Your task to perform on an android device: Check the settings for the Instagram app Image 0: 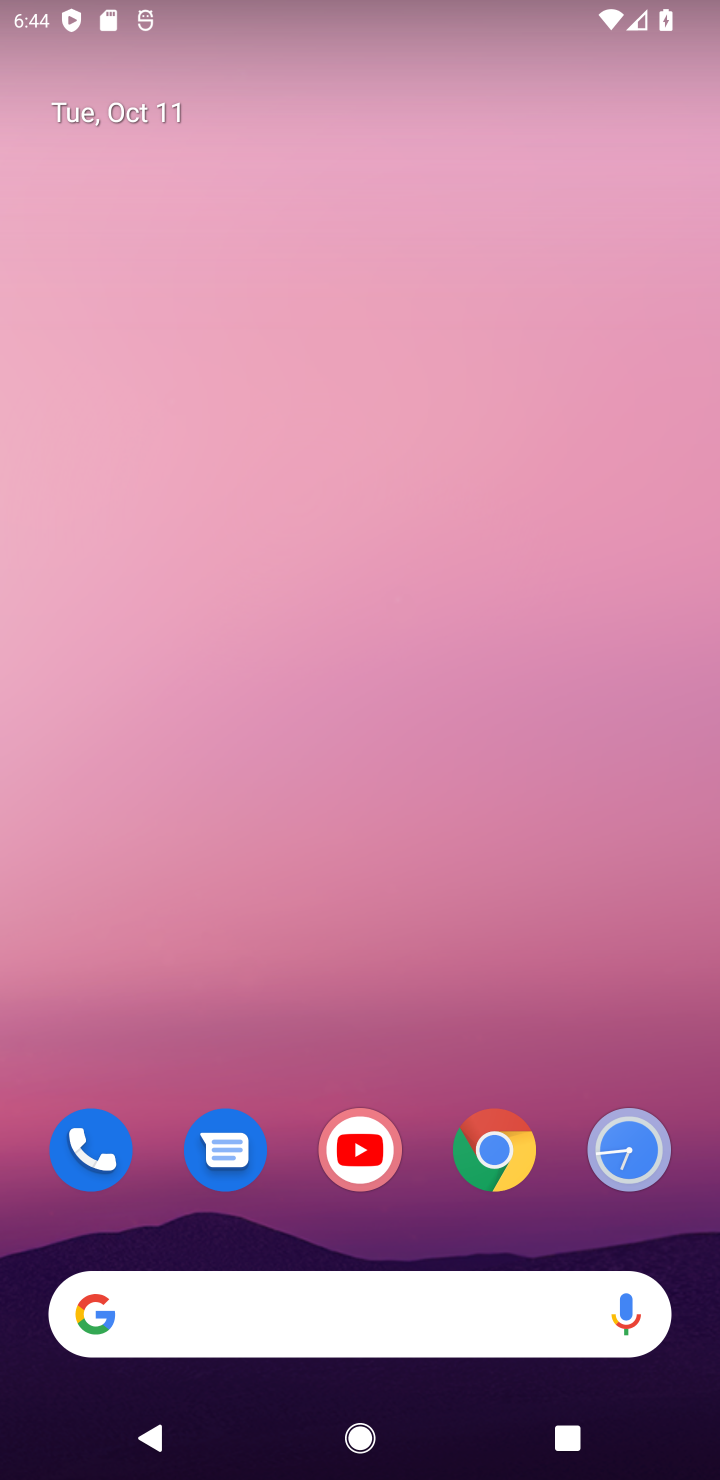
Step 0: click (480, 62)
Your task to perform on an android device: Check the settings for the Instagram app Image 1: 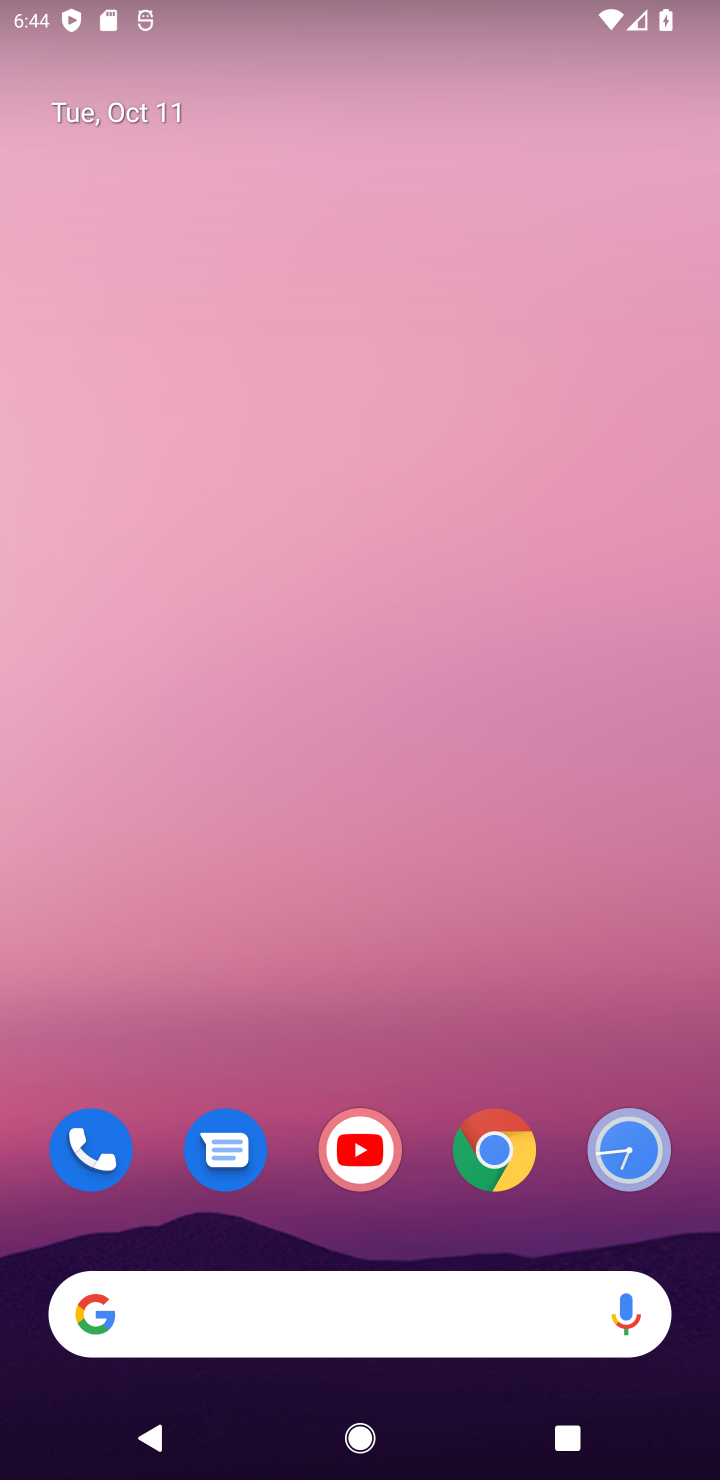
Step 1: task complete